Your task to perform on an android device: Do I have any events tomorrow? Image 0: 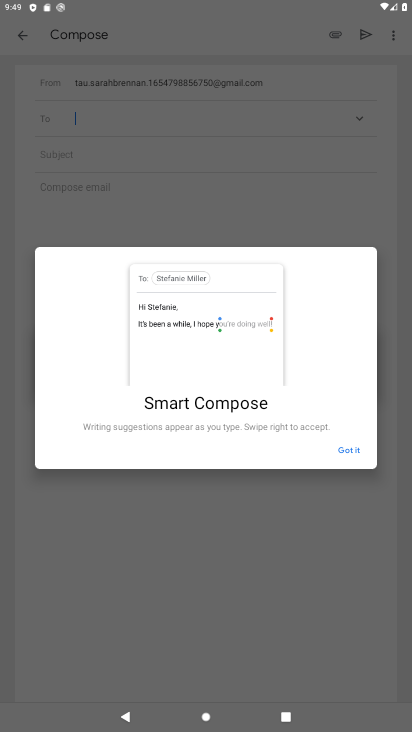
Step 0: press home button
Your task to perform on an android device: Do I have any events tomorrow? Image 1: 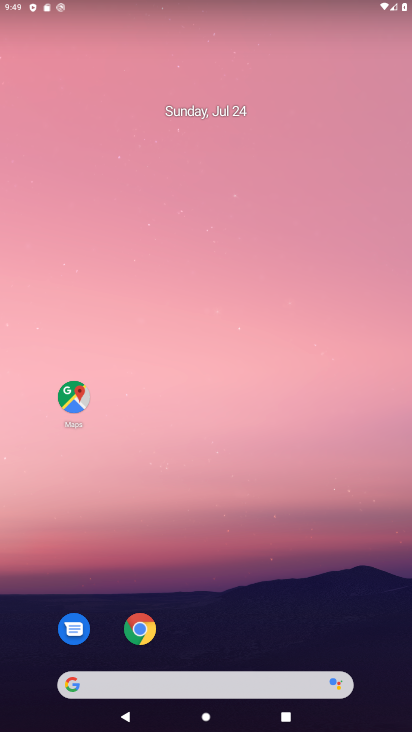
Step 1: drag from (181, 686) to (275, 28)
Your task to perform on an android device: Do I have any events tomorrow? Image 2: 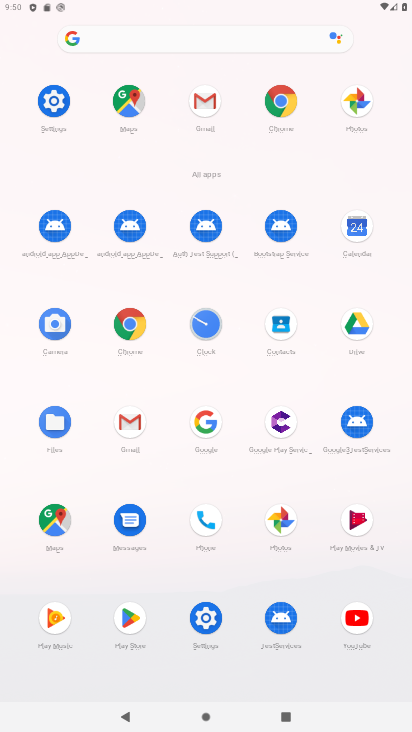
Step 2: click (358, 229)
Your task to perform on an android device: Do I have any events tomorrow? Image 3: 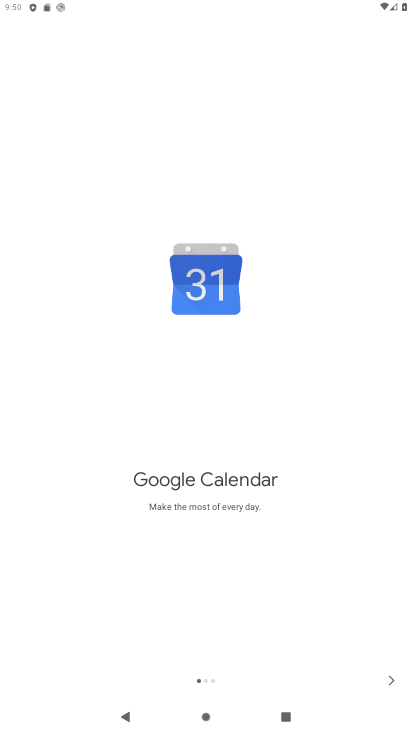
Step 3: click (390, 680)
Your task to perform on an android device: Do I have any events tomorrow? Image 4: 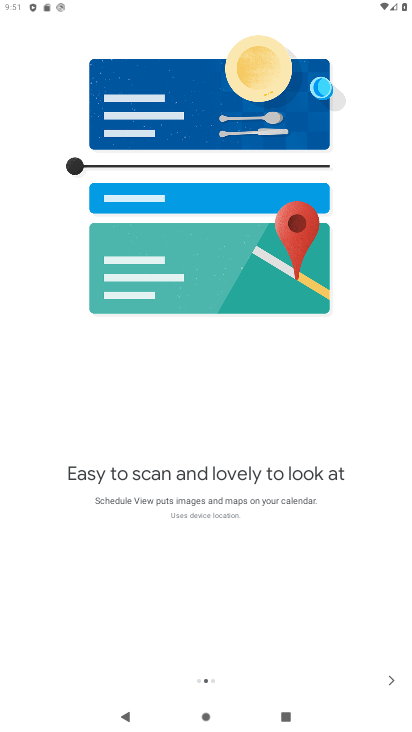
Step 4: click (391, 678)
Your task to perform on an android device: Do I have any events tomorrow? Image 5: 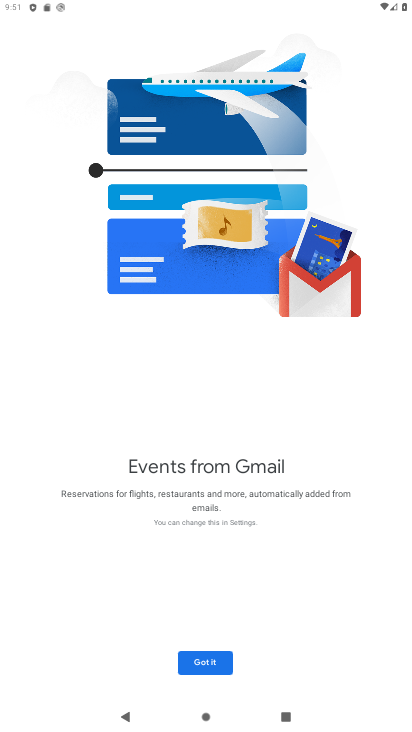
Step 5: click (207, 662)
Your task to perform on an android device: Do I have any events tomorrow? Image 6: 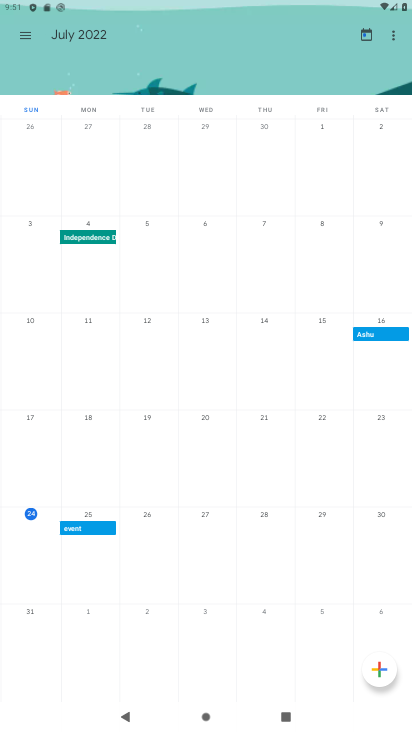
Step 6: click (149, 519)
Your task to perform on an android device: Do I have any events tomorrow? Image 7: 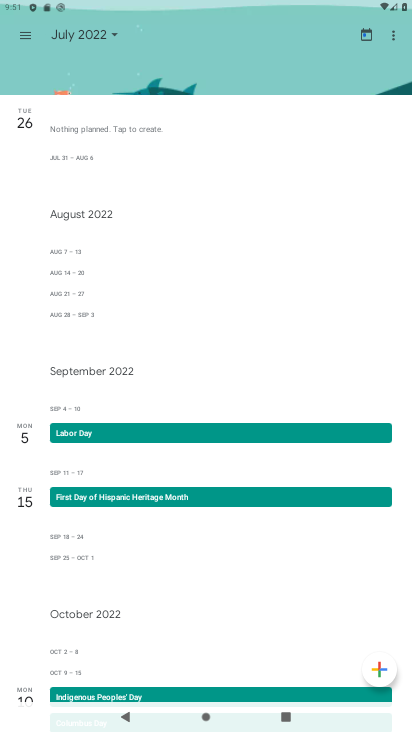
Step 7: click (109, 126)
Your task to perform on an android device: Do I have any events tomorrow? Image 8: 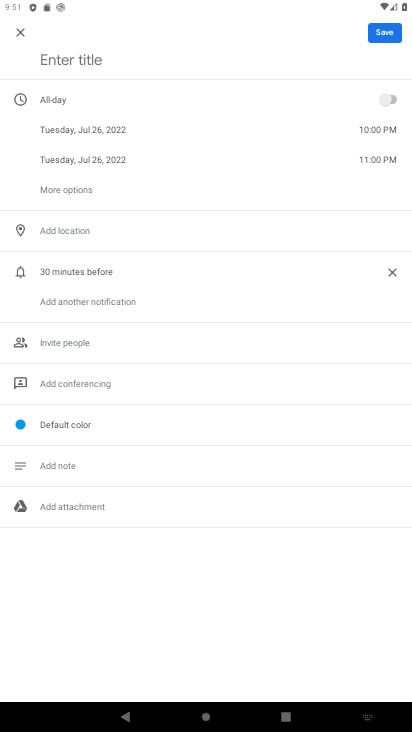
Step 8: type "Meet"
Your task to perform on an android device: Do I have any events tomorrow? Image 9: 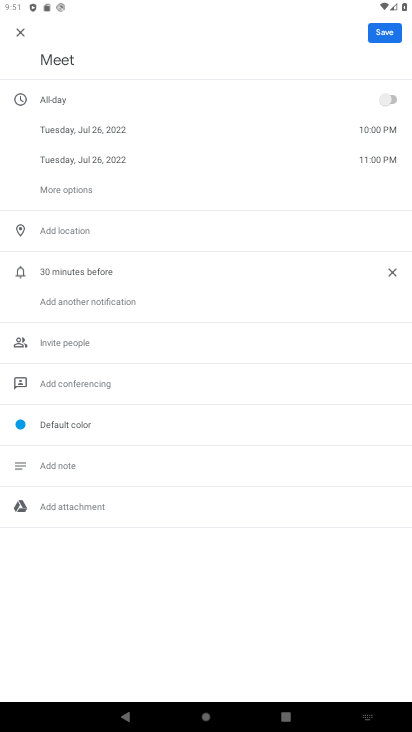
Step 9: click (387, 103)
Your task to perform on an android device: Do I have any events tomorrow? Image 10: 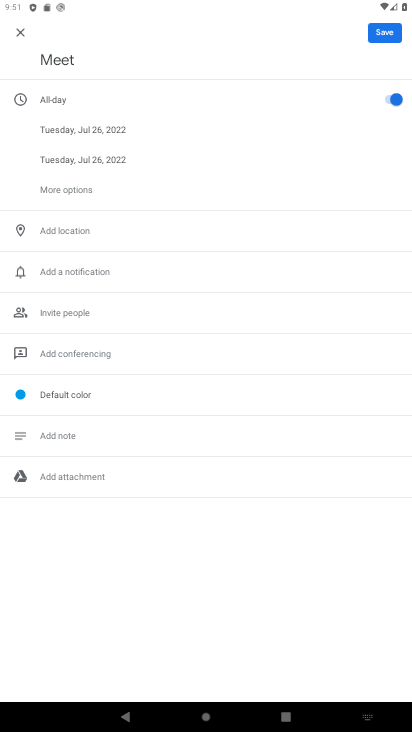
Step 10: click (385, 33)
Your task to perform on an android device: Do I have any events tomorrow? Image 11: 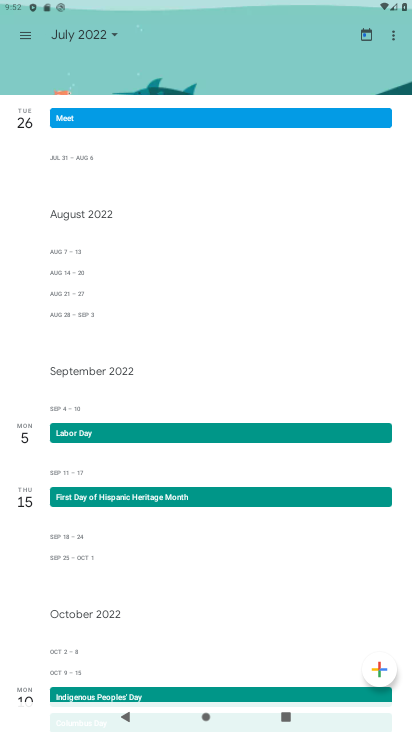
Step 11: task complete